Your task to perform on an android device: add a contact in the contacts app Image 0: 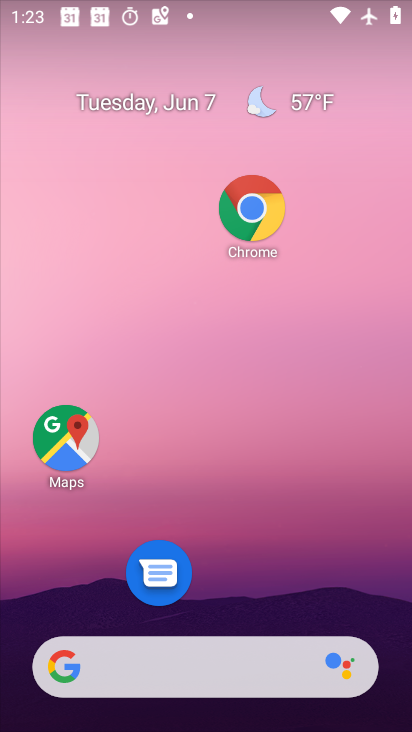
Step 0: drag from (240, 595) to (250, 77)
Your task to perform on an android device: add a contact in the contacts app Image 1: 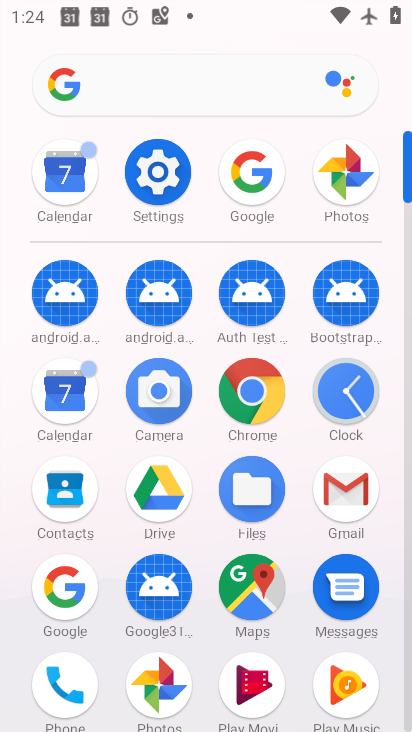
Step 1: click (63, 494)
Your task to perform on an android device: add a contact in the contacts app Image 2: 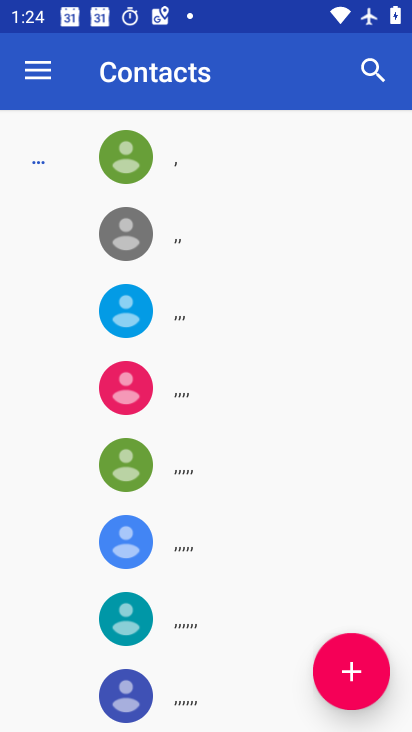
Step 2: click (344, 681)
Your task to perform on an android device: add a contact in the contacts app Image 3: 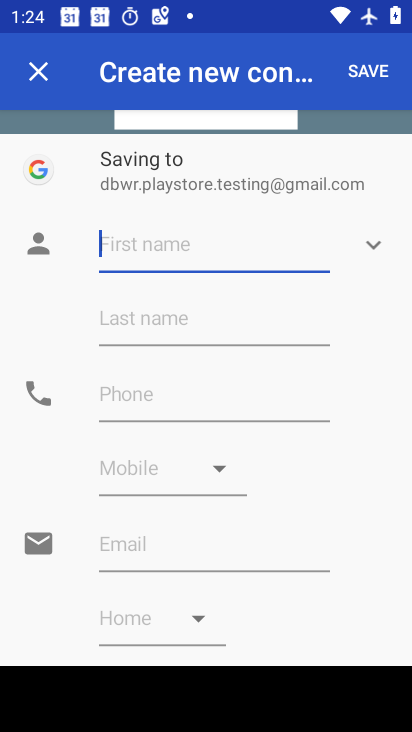
Step 3: type "hftghfg"
Your task to perform on an android device: add a contact in the contacts app Image 4: 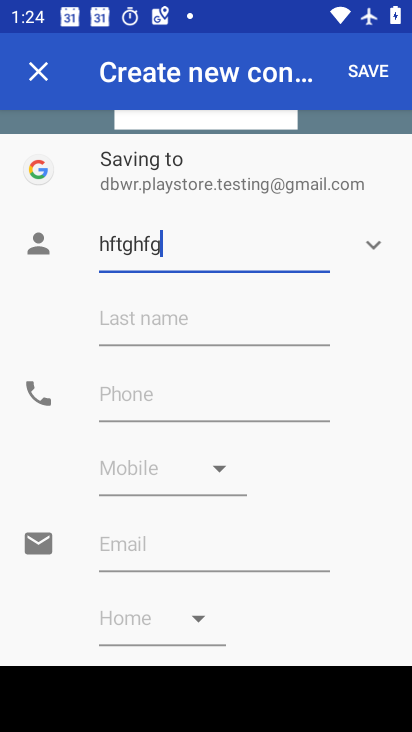
Step 4: click (151, 391)
Your task to perform on an android device: add a contact in the contacts app Image 5: 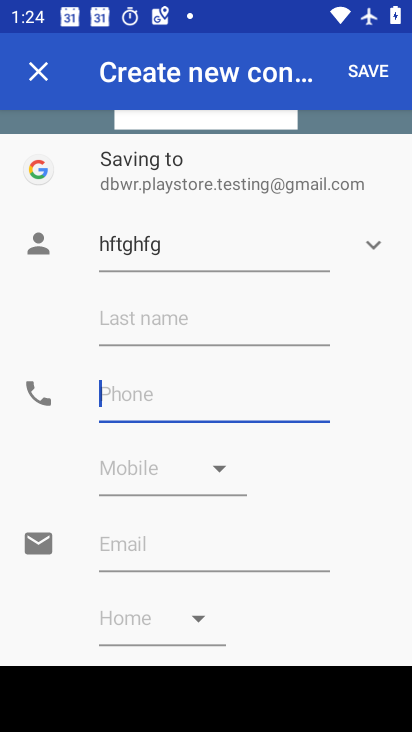
Step 5: type "698979677"
Your task to perform on an android device: add a contact in the contacts app Image 6: 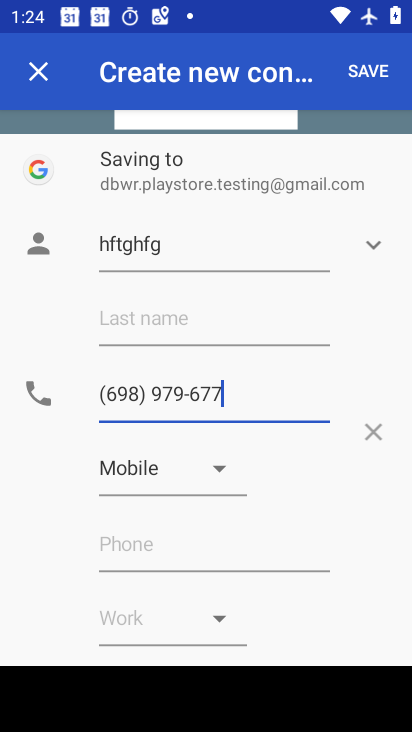
Step 6: click (359, 67)
Your task to perform on an android device: add a contact in the contacts app Image 7: 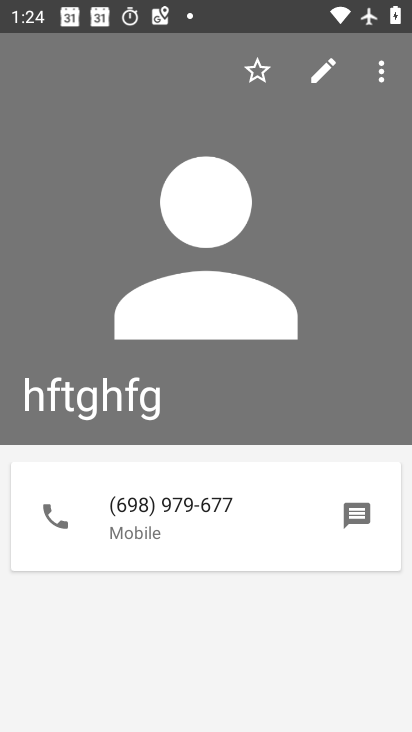
Step 7: task complete